Your task to perform on an android device: Search for pizza restaurants on Maps Image 0: 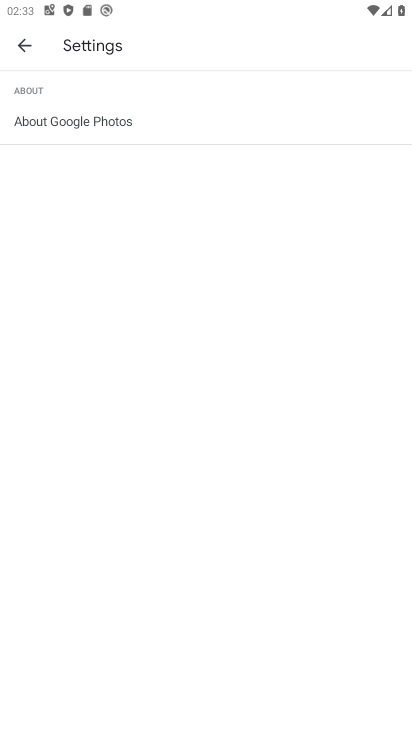
Step 0: press home button
Your task to perform on an android device: Search for pizza restaurants on Maps Image 1: 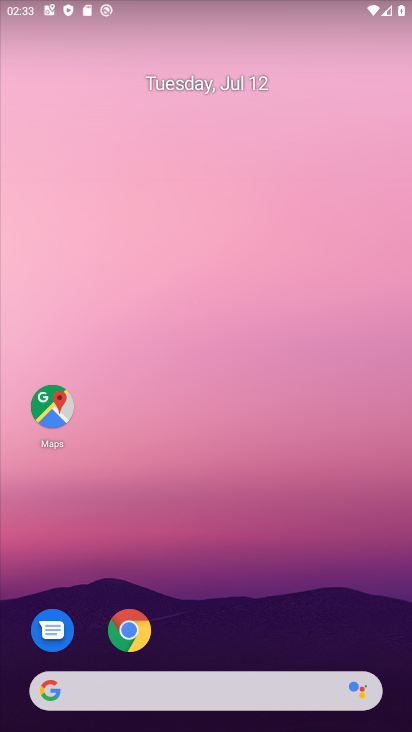
Step 1: click (54, 402)
Your task to perform on an android device: Search for pizza restaurants on Maps Image 2: 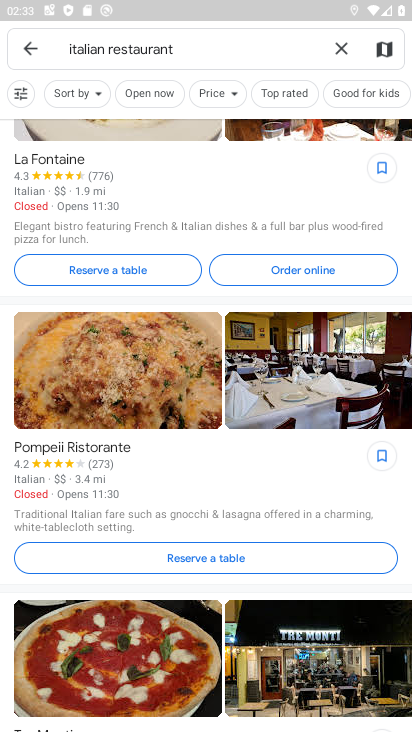
Step 2: click (340, 46)
Your task to perform on an android device: Search for pizza restaurants on Maps Image 3: 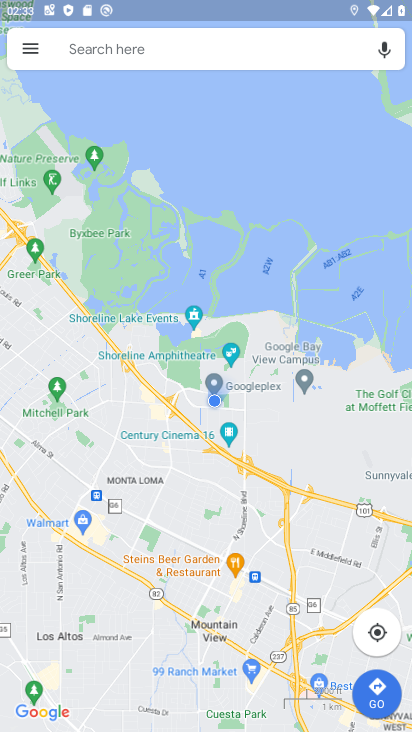
Step 3: click (120, 44)
Your task to perform on an android device: Search for pizza restaurants on Maps Image 4: 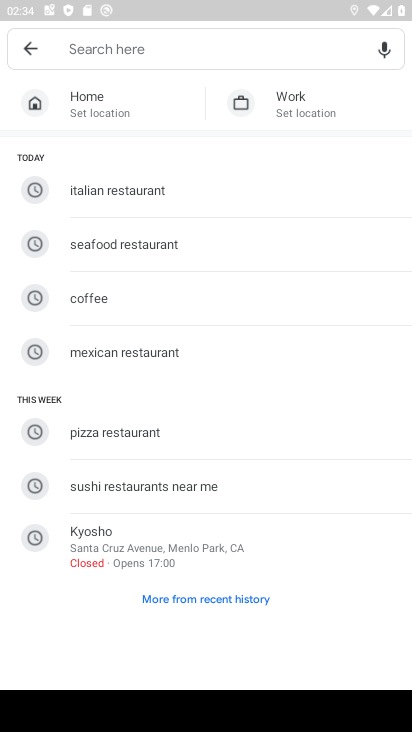
Step 4: type "pizza restaurants"
Your task to perform on an android device: Search for pizza restaurants on Maps Image 5: 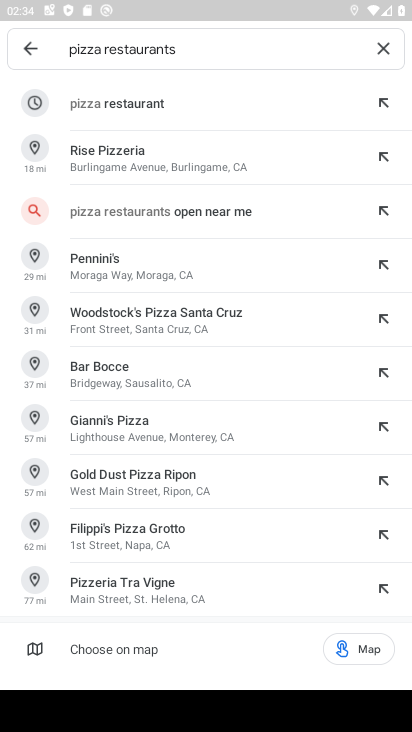
Step 5: click (114, 103)
Your task to perform on an android device: Search for pizza restaurants on Maps Image 6: 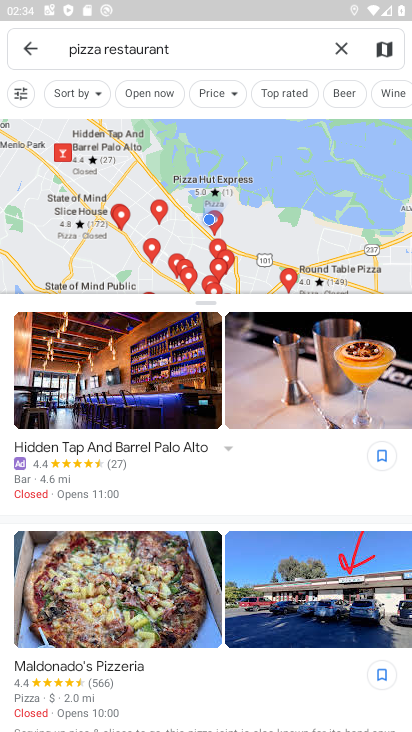
Step 6: task complete